Your task to perform on an android device: make emails show in primary in the gmail app Image 0: 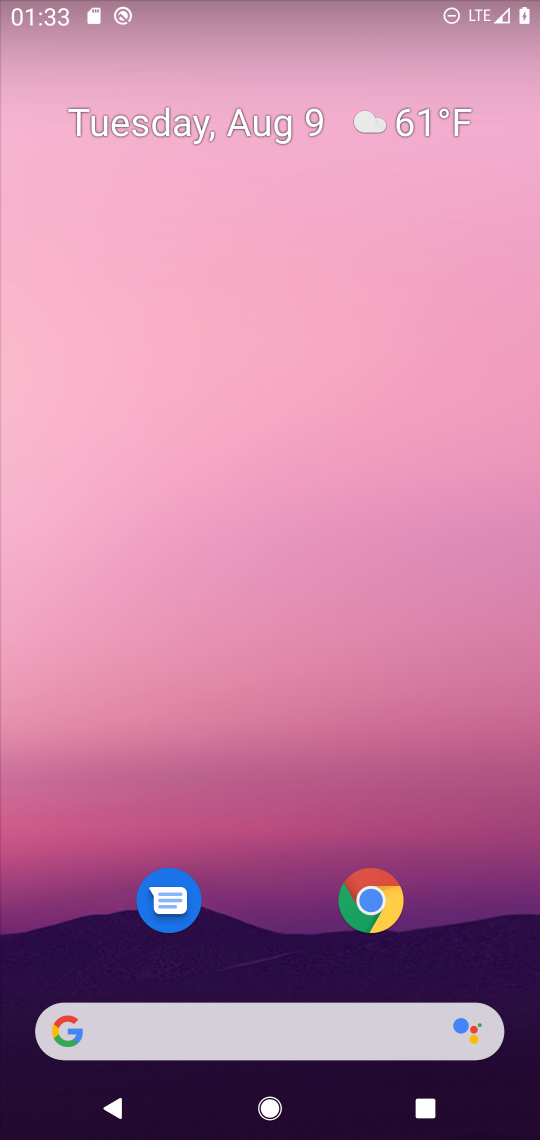
Step 0: press home button
Your task to perform on an android device: make emails show in primary in the gmail app Image 1: 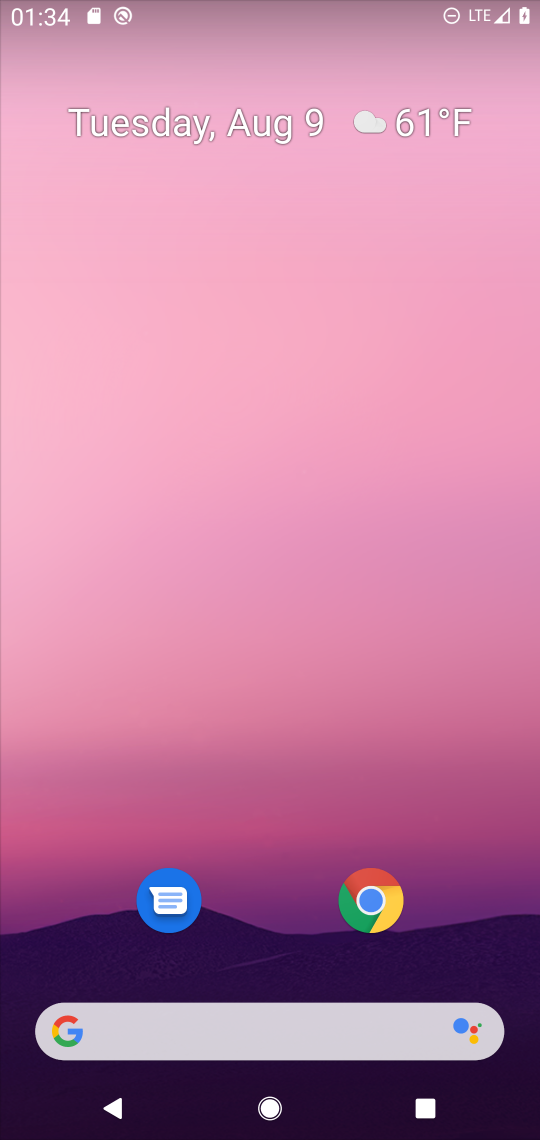
Step 1: drag from (492, 938) to (479, 91)
Your task to perform on an android device: make emails show in primary in the gmail app Image 2: 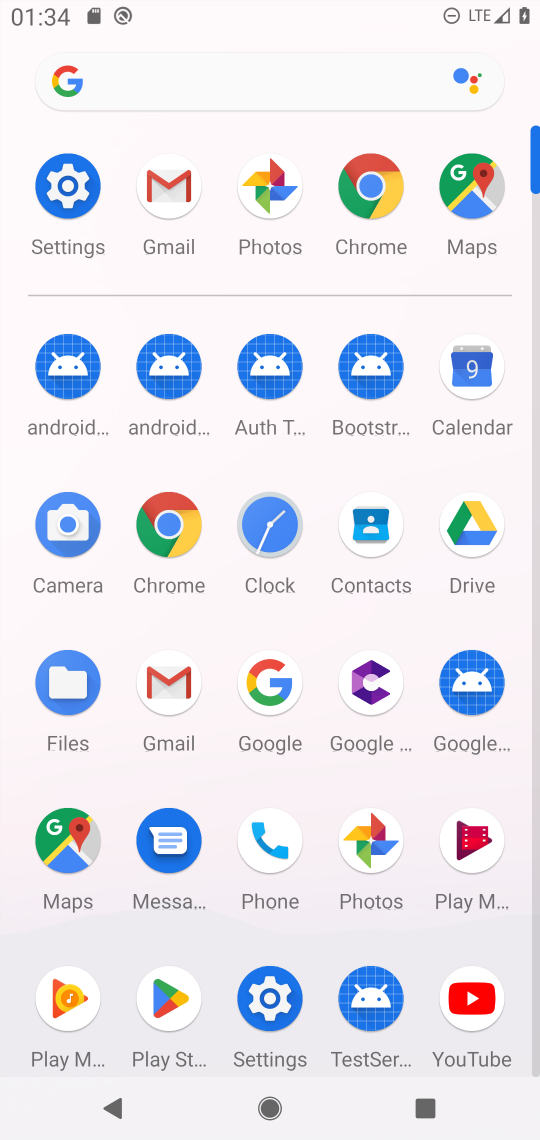
Step 2: click (163, 686)
Your task to perform on an android device: make emails show in primary in the gmail app Image 3: 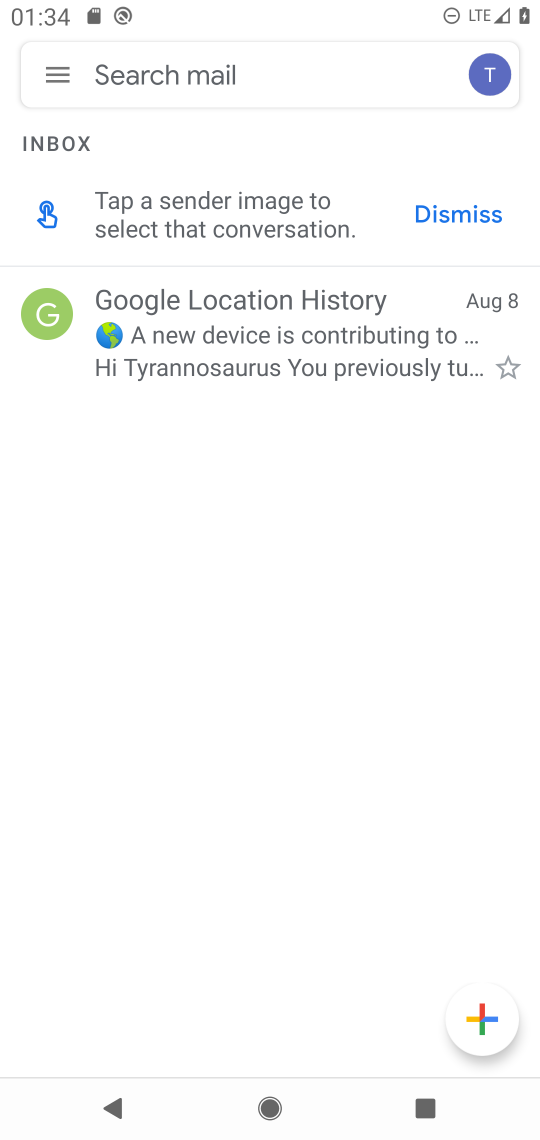
Step 3: click (46, 68)
Your task to perform on an android device: make emails show in primary in the gmail app Image 4: 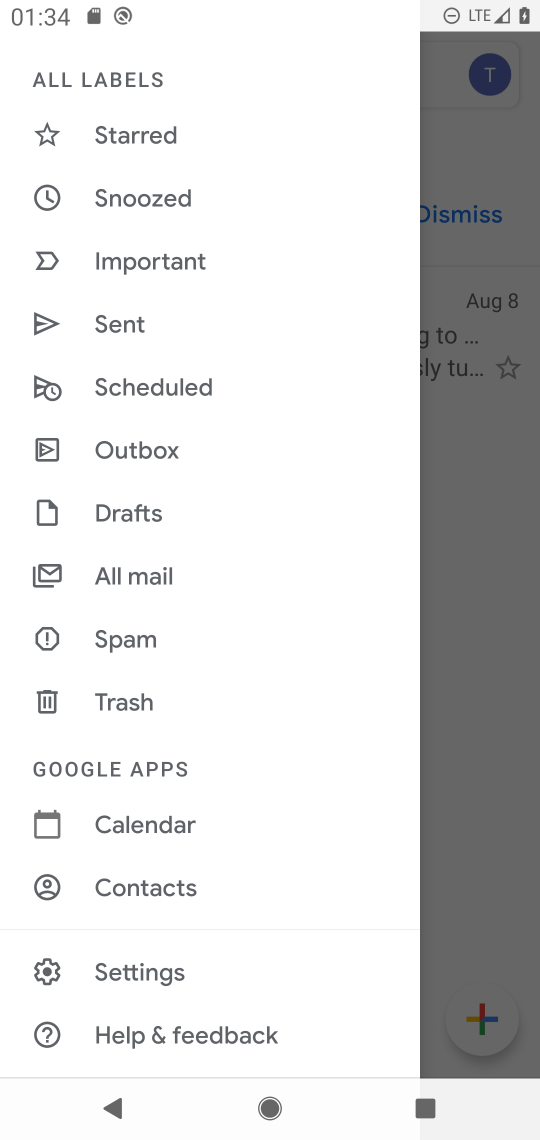
Step 4: drag from (232, 876) to (284, 457)
Your task to perform on an android device: make emails show in primary in the gmail app Image 5: 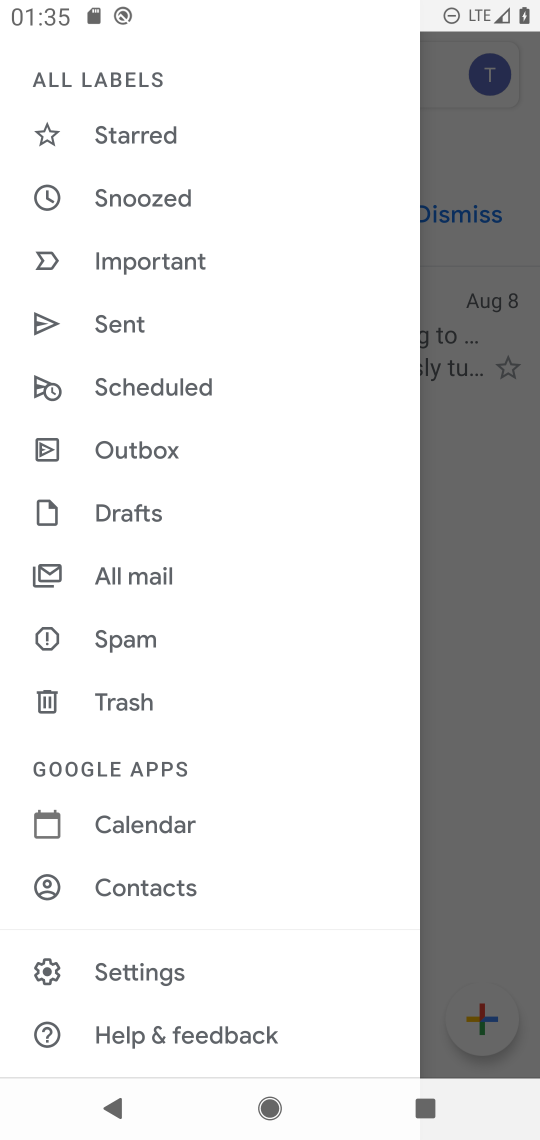
Step 5: drag from (292, 237) to (301, 745)
Your task to perform on an android device: make emails show in primary in the gmail app Image 6: 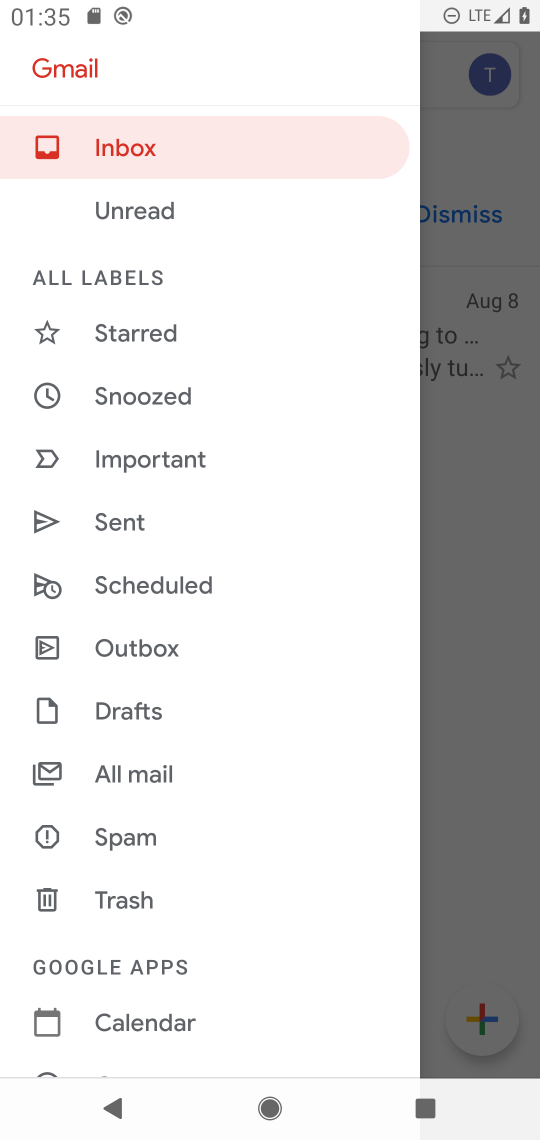
Step 6: drag from (258, 753) to (283, 344)
Your task to perform on an android device: make emails show in primary in the gmail app Image 7: 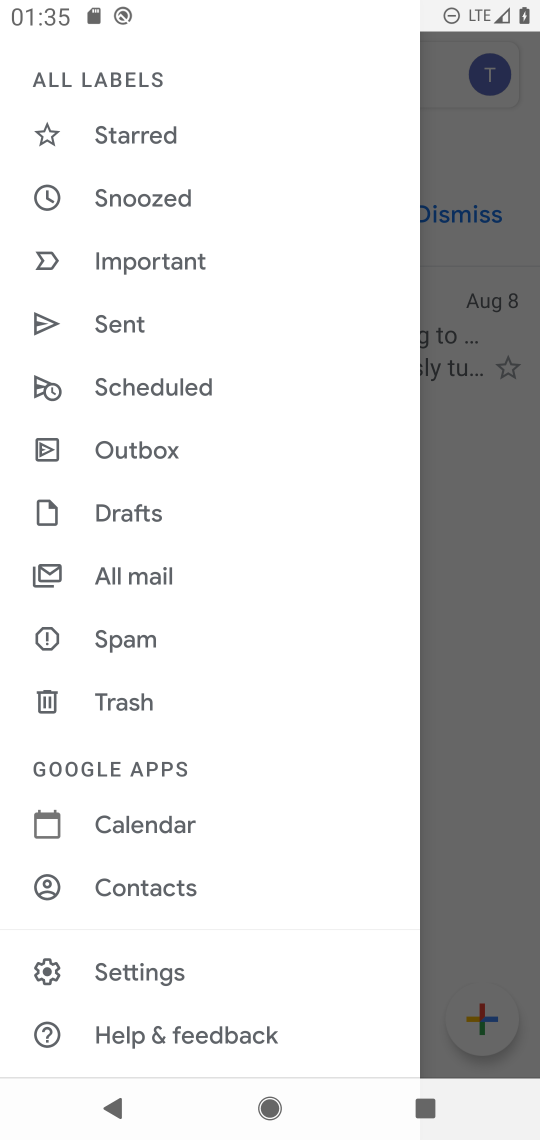
Step 7: click (152, 968)
Your task to perform on an android device: make emails show in primary in the gmail app Image 8: 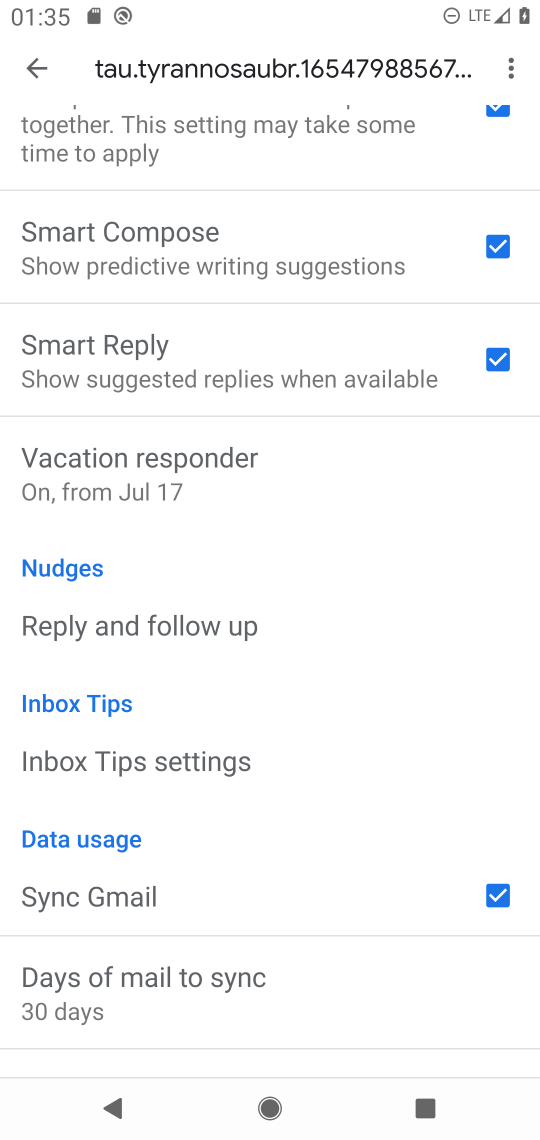
Step 8: drag from (376, 184) to (353, 649)
Your task to perform on an android device: make emails show in primary in the gmail app Image 9: 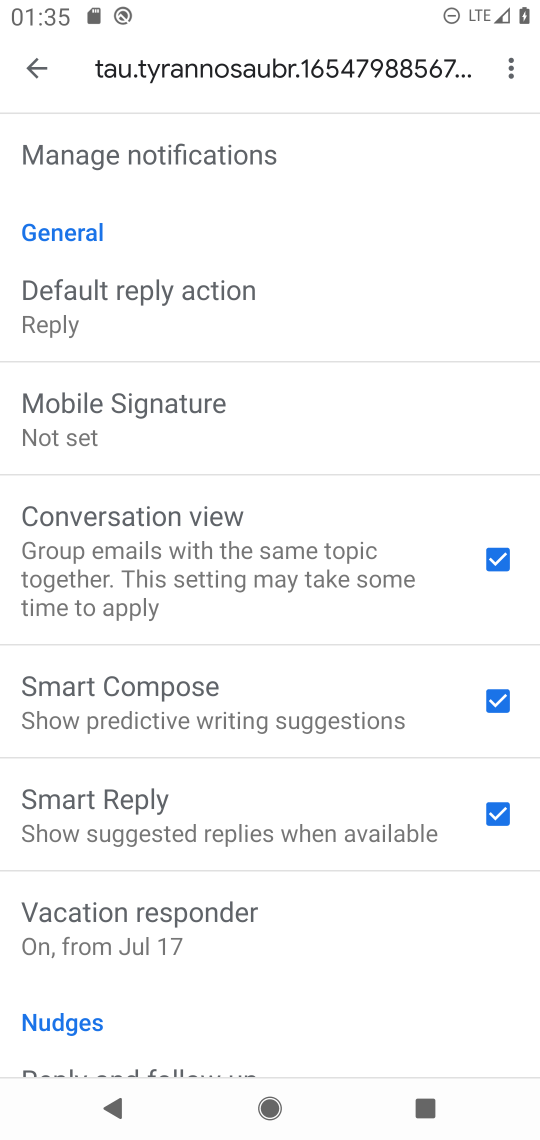
Step 9: drag from (355, 170) to (351, 735)
Your task to perform on an android device: make emails show in primary in the gmail app Image 10: 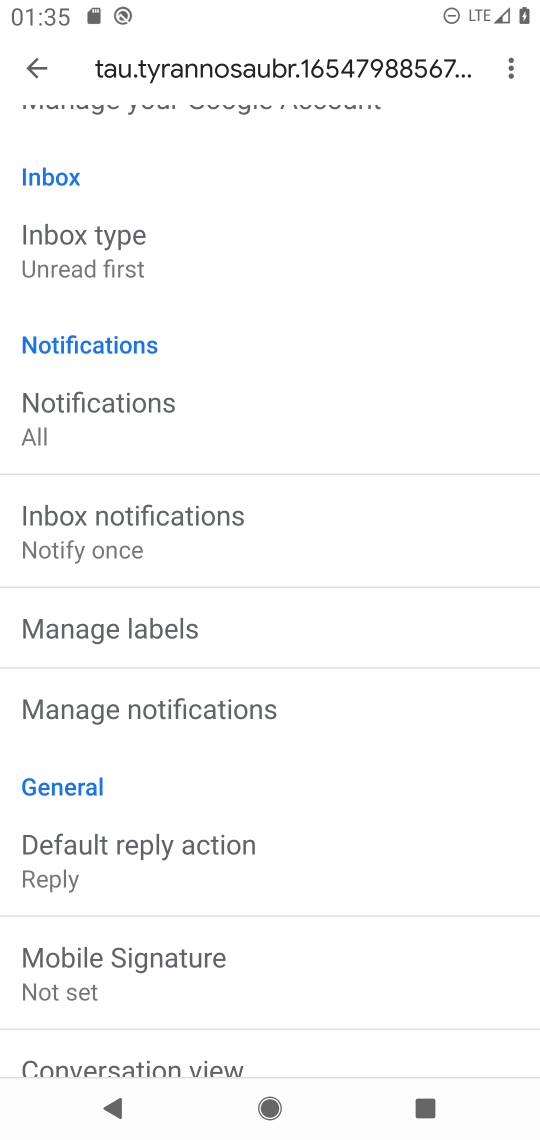
Step 10: drag from (336, 198) to (354, 627)
Your task to perform on an android device: make emails show in primary in the gmail app Image 11: 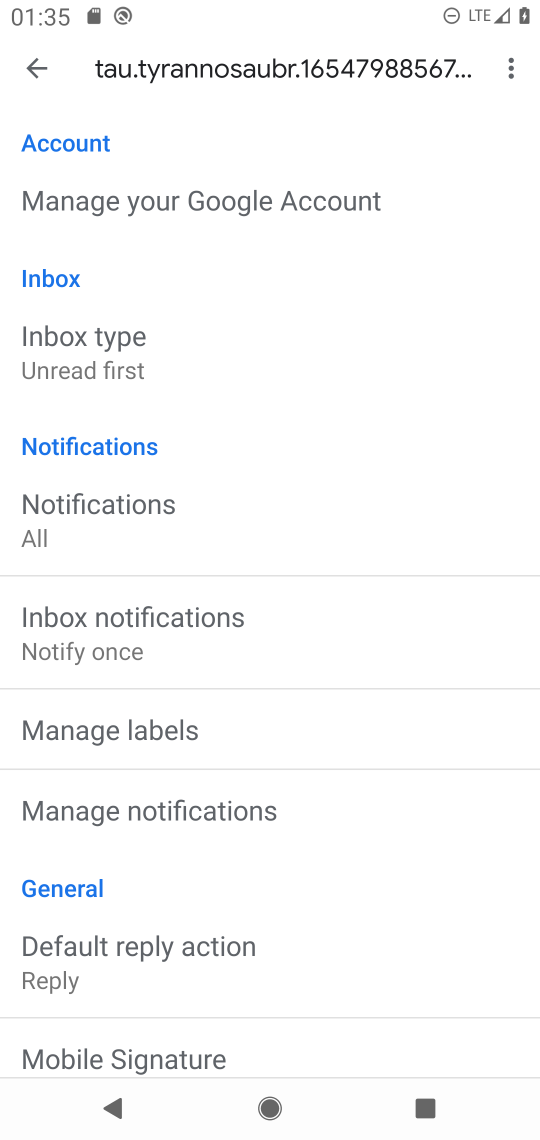
Step 11: drag from (444, 246) to (421, 683)
Your task to perform on an android device: make emails show in primary in the gmail app Image 12: 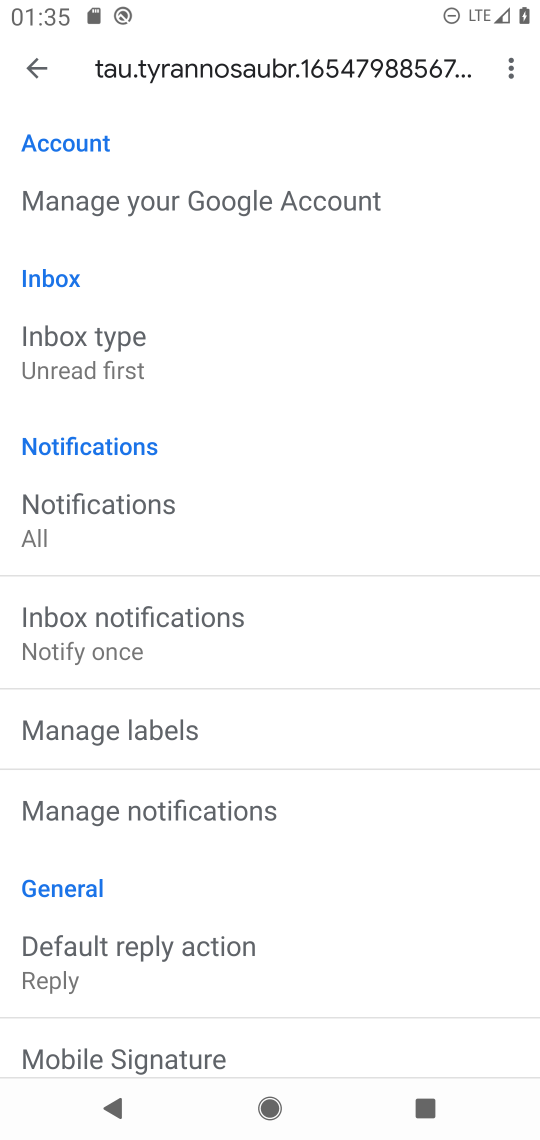
Step 12: click (54, 351)
Your task to perform on an android device: make emails show in primary in the gmail app Image 13: 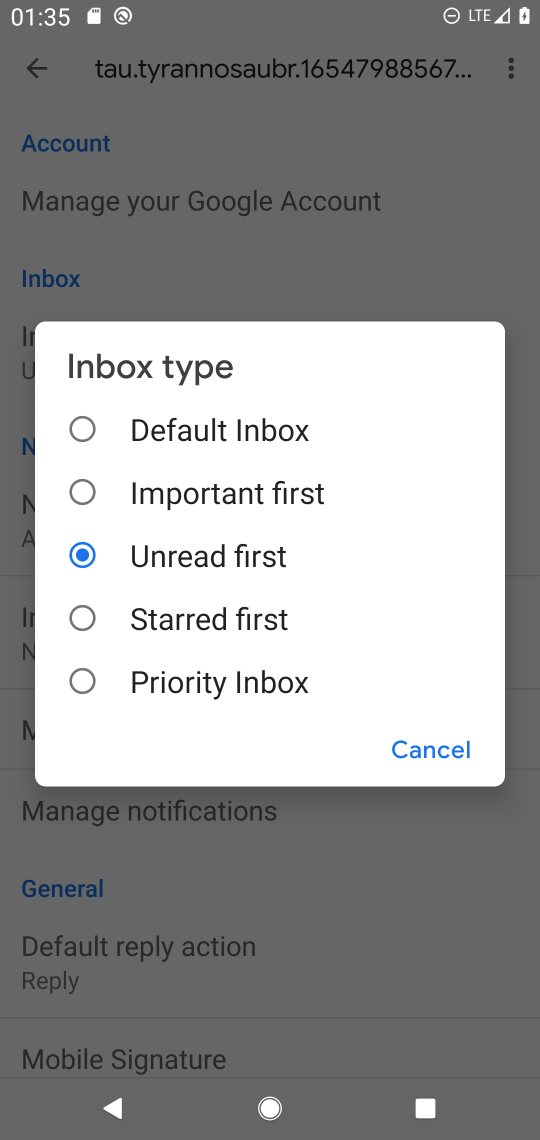
Step 13: click (222, 416)
Your task to perform on an android device: make emails show in primary in the gmail app Image 14: 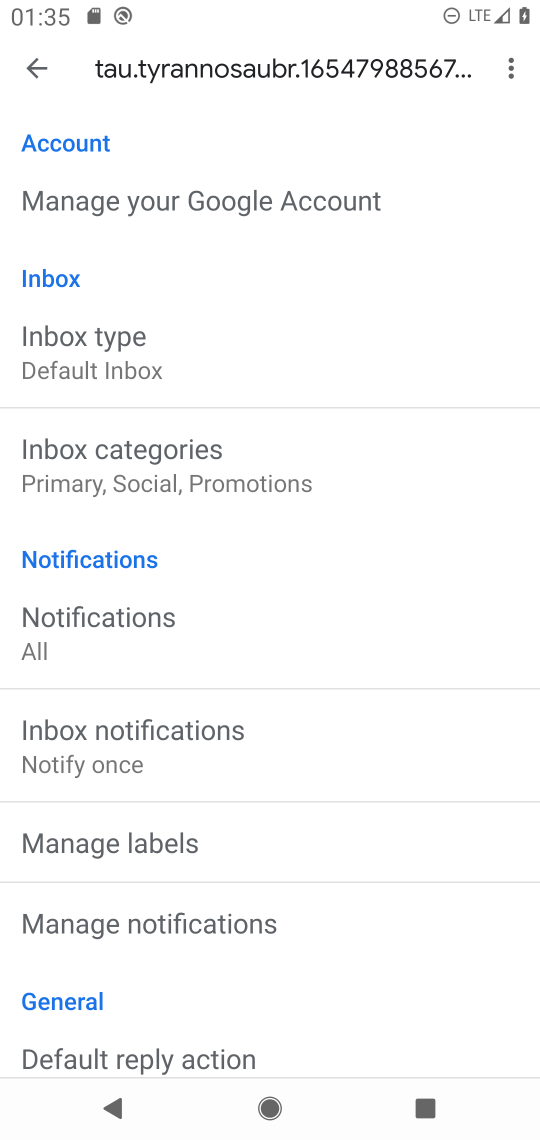
Step 14: click (143, 455)
Your task to perform on an android device: make emails show in primary in the gmail app Image 15: 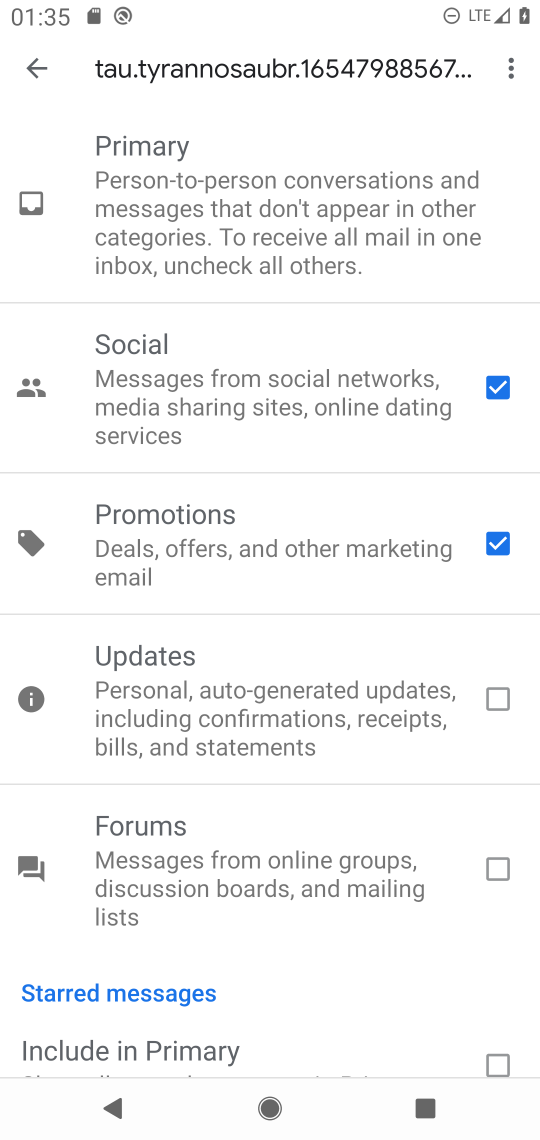
Step 15: click (486, 388)
Your task to perform on an android device: make emails show in primary in the gmail app Image 16: 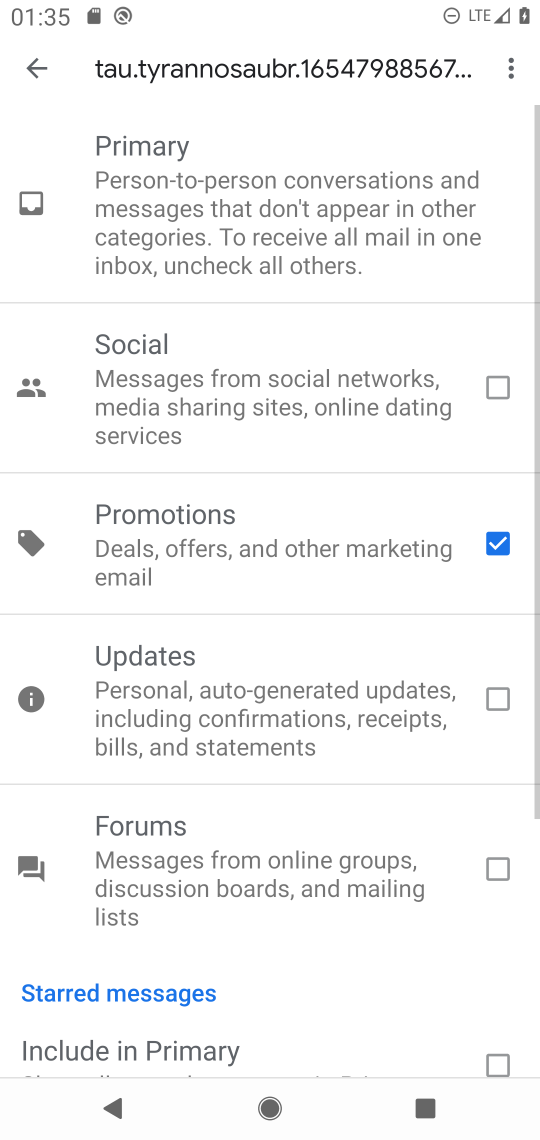
Step 16: click (498, 541)
Your task to perform on an android device: make emails show in primary in the gmail app Image 17: 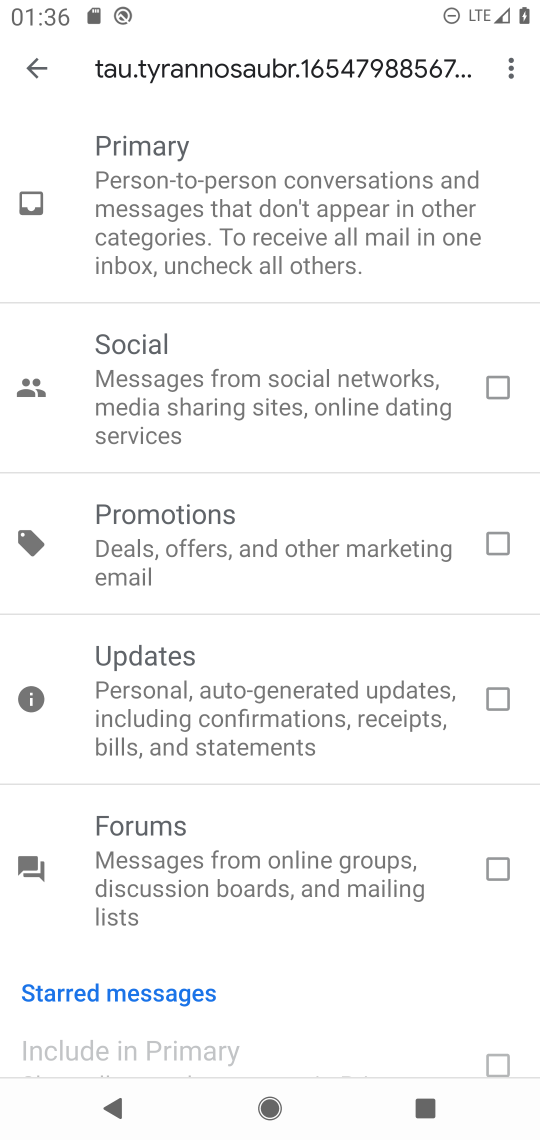
Step 17: task complete